Your task to perform on an android device: Open Youtube and go to the subscriptions tab Image 0: 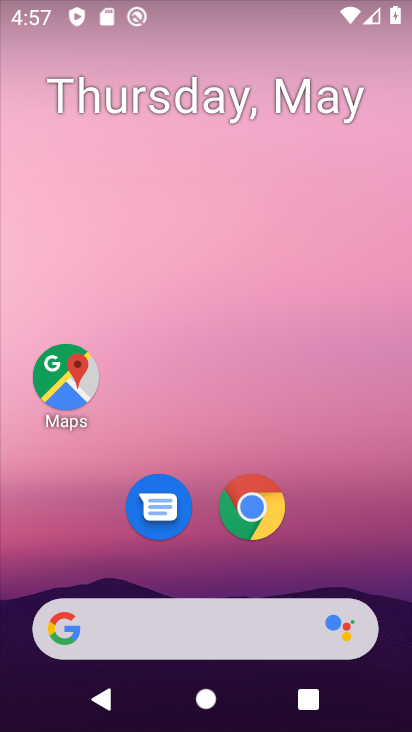
Step 0: drag from (354, 563) to (330, 87)
Your task to perform on an android device: Open Youtube and go to the subscriptions tab Image 1: 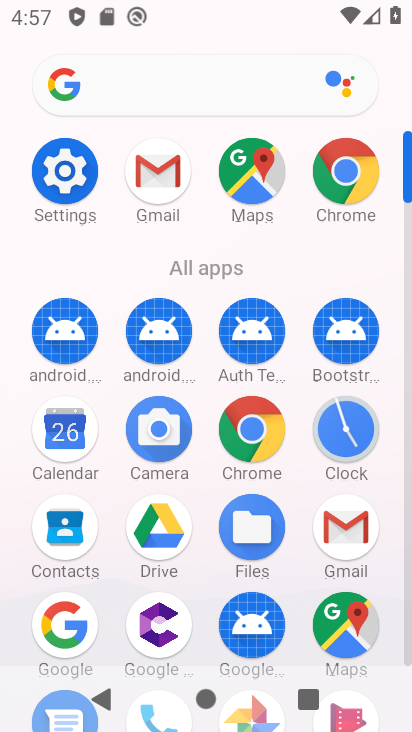
Step 1: drag from (293, 653) to (291, 234)
Your task to perform on an android device: Open Youtube and go to the subscriptions tab Image 2: 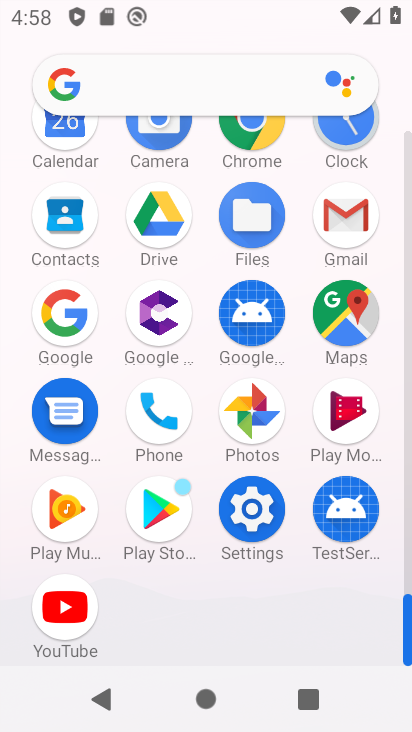
Step 2: click (64, 620)
Your task to perform on an android device: Open Youtube and go to the subscriptions tab Image 3: 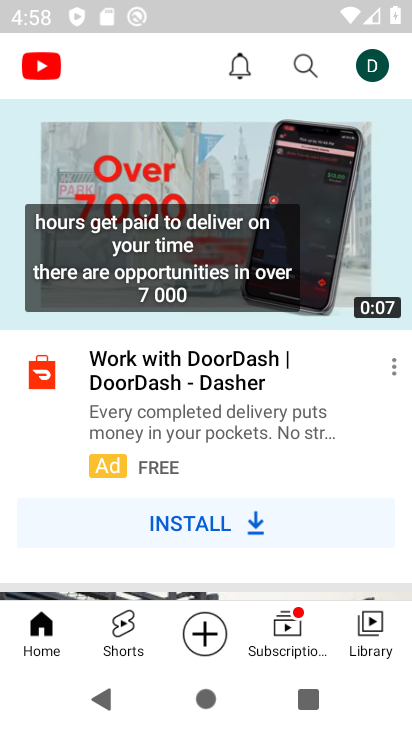
Step 3: click (298, 613)
Your task to perform on an android device: Open Youtube and go to the subscriptions tab Image 4: 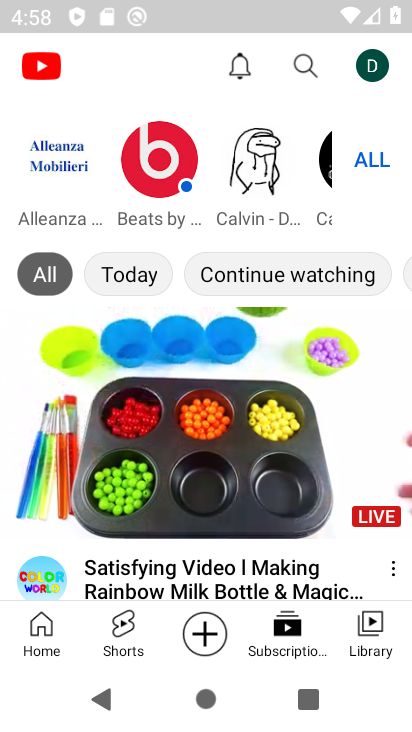
Step 4: task complete